Your task to perform on an android device: What's the weather going to be tomorrow? Image 0: 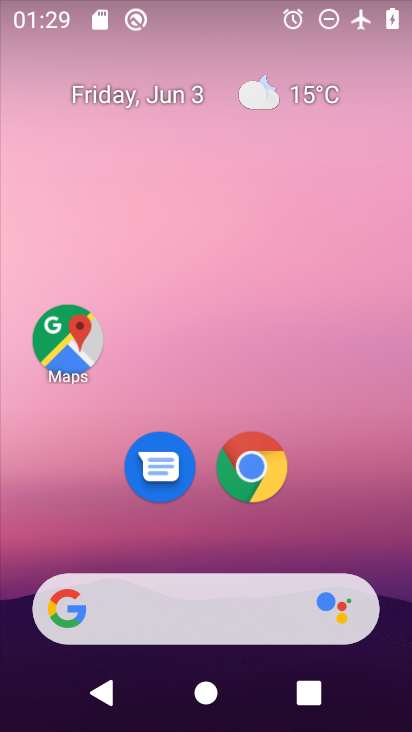
Step 0: click (307, 88)
Your task to perform on an android device: What's the weather going to be tomorrow? Image 1: 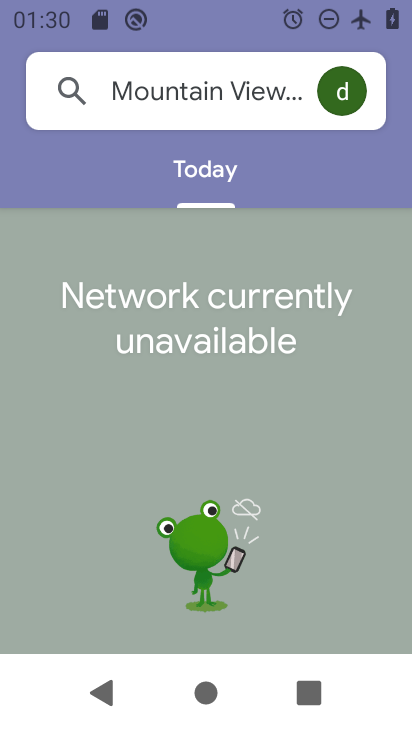
Step 1: task complete